Your task to perform on an android device: allow notifications from all sites in the chrome app Image 0: 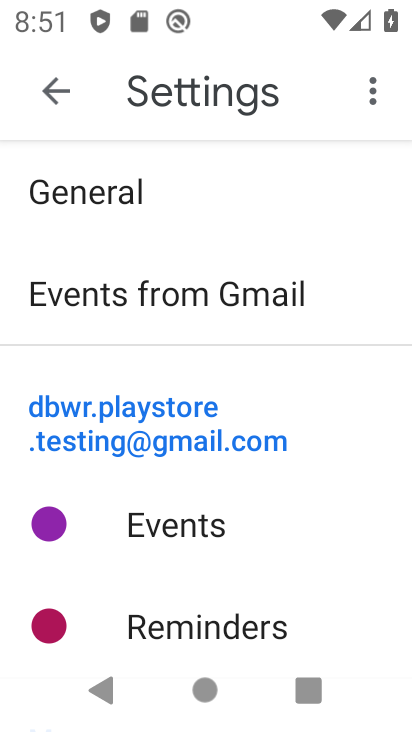
Step 0: press home button
Your task to perform on an android device: allow notifications from all sites in the chrome app Image 1: 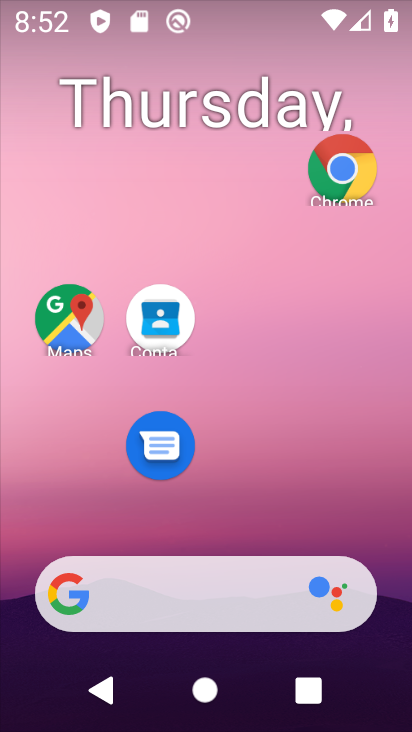
Step 1: drag from (249, 497) to (224, 318)
Your task to perform on an android device: allow notifications from all sites in the chrome app Image 2: 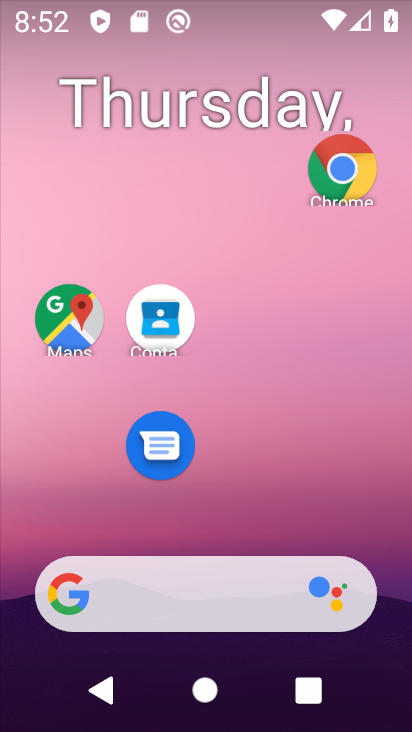
Step 2: drag from (245, 633) to (261, 327)
Your task to perform on an android device: allow notifications from all sites in the chrome app Image 3: 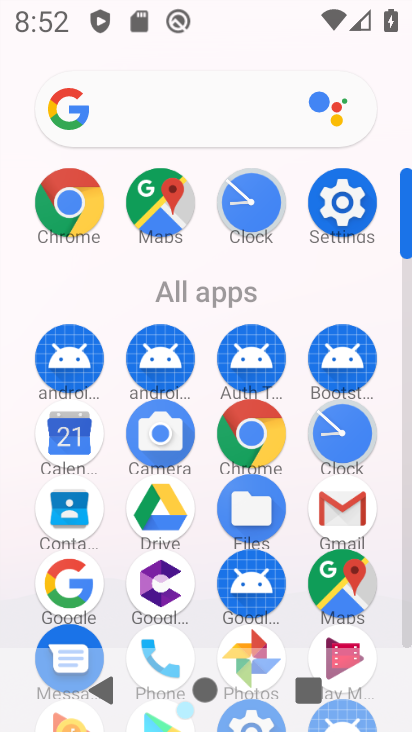
Step 3: click (71, 205)
Your task to perform on an android device: allow notifications from all sites in the chrome app Image 4: 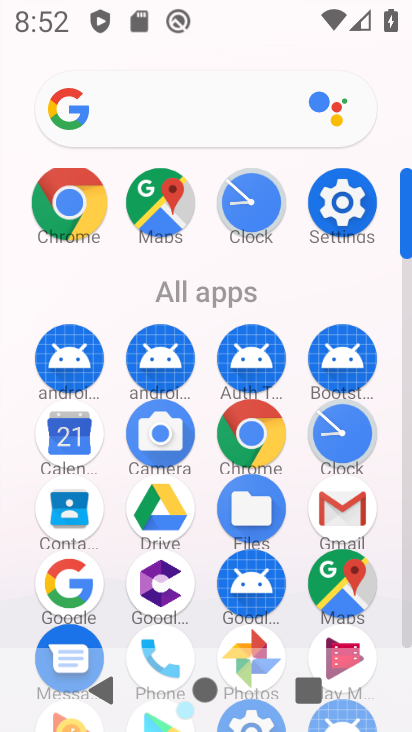
Step 4: click (70, 196)
Your task to perform on an android device: allow notifications from all sites in the chrome app Image 5: 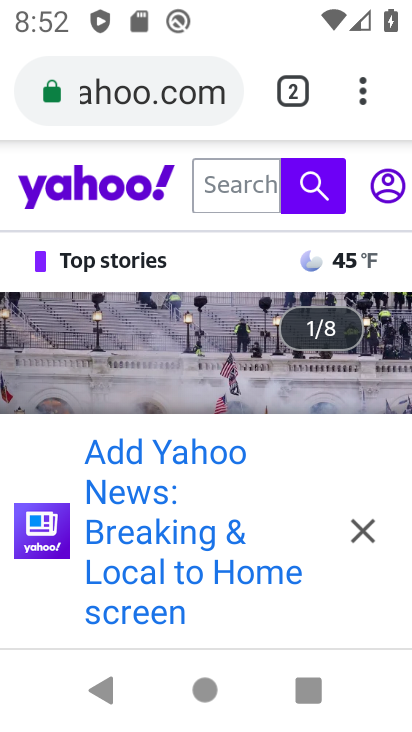
Step 5: click (361, 89)
Your task to perform on an android device: allow notifications from all sites in the chrome app Image 6: 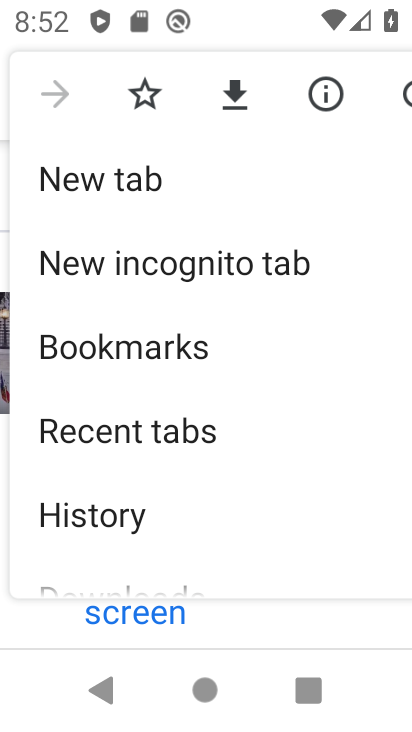
Step 6: drag from (179, 459) to (152, 258)
Your task to perform on an android device: allow notifications from all sites in the chrome app Image 7: 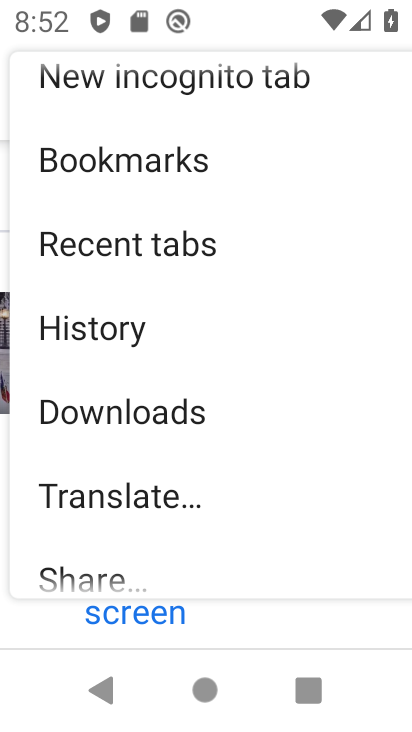
Step 7: drag from (195, 564) to (205, 254)
Your task to perform on an android device: allow notifications from all sites in the chrome app Image 8: 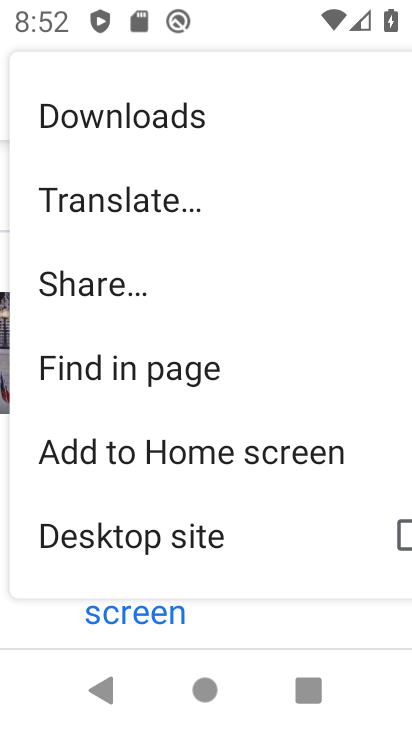
Step 8: drag from (181, 473) to (177, 301)
Your task to perform on an android device: allow notifications from all sites in the chrome app Image 9: 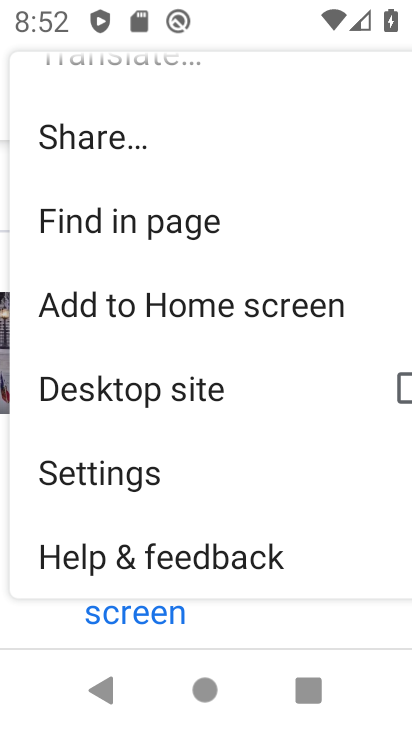
Step 9: click (124, 474)
Your task to perform on an android device: allow notifications from all sites in the chrome app Image 10: 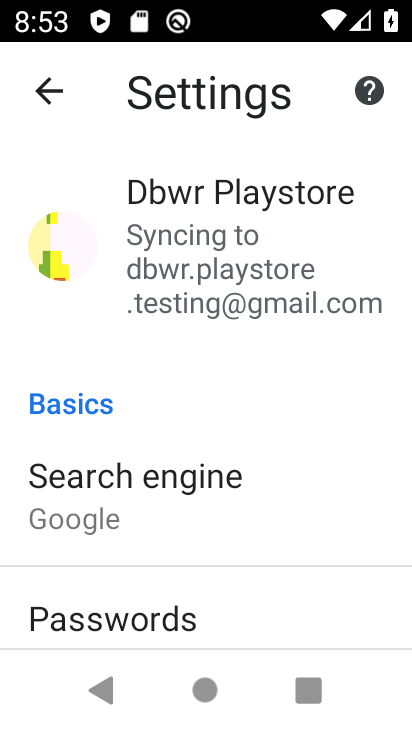
Step 10: drag from (131, 626) to (170, 329)
Your task to perform on an android device: allow notifications from all sites in the chrome app Image 11: 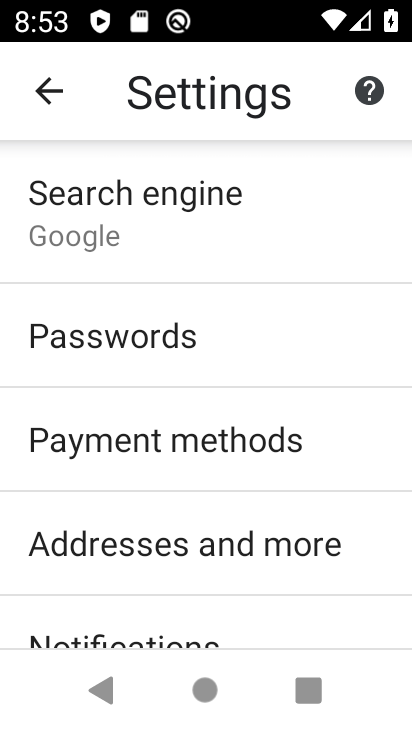
Step 11: drag from (140, 628) to (149, 389)
Your task to perform on an android device: allow notifications from all sites in the chrome app Image 12: 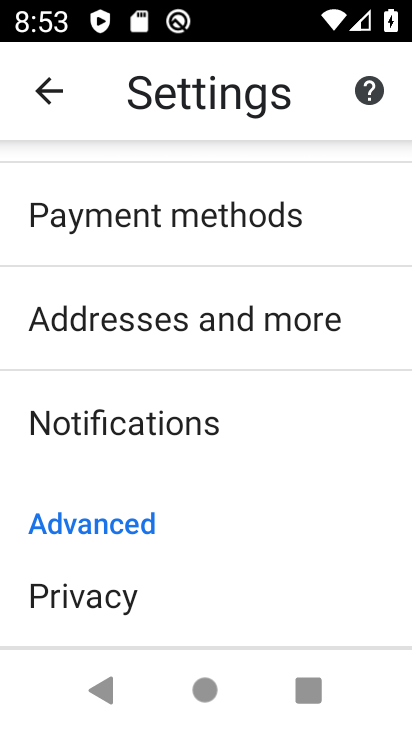
Step 12: drag from (173, 508) to (199, 444)
Your task to perform on an android device: allow notifications from all sites in the chrome app Image 13: 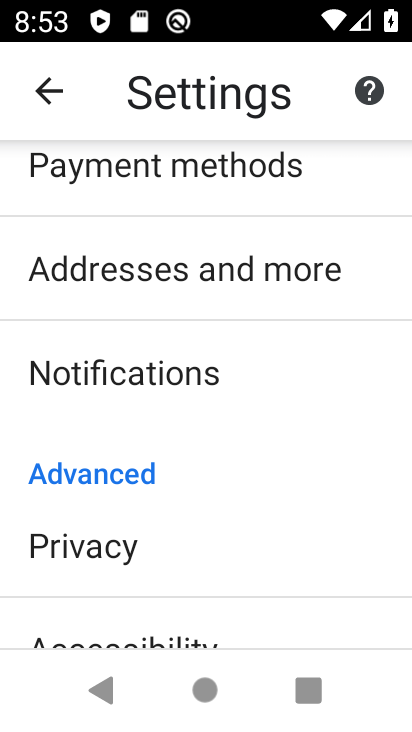
Step 13: drag from (143, 526) to (183, 309)
Your task to perform on an android device: allow notifications from all sites in the chrome app Image 14: 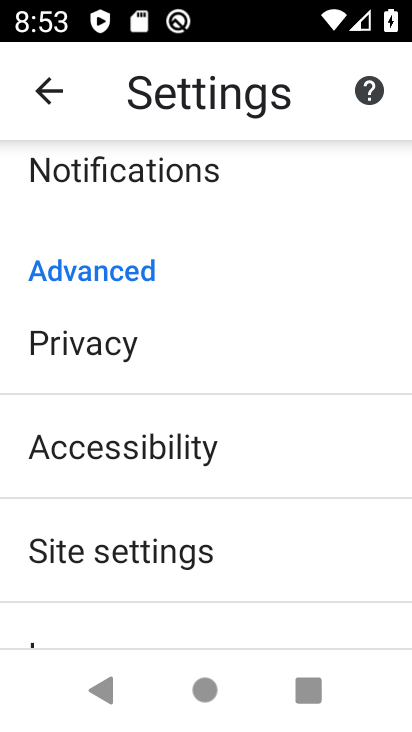
Step 14: click (150, 549)
Your task to perform on an android device: allow notifications from all sites in the chrome app Image 15: 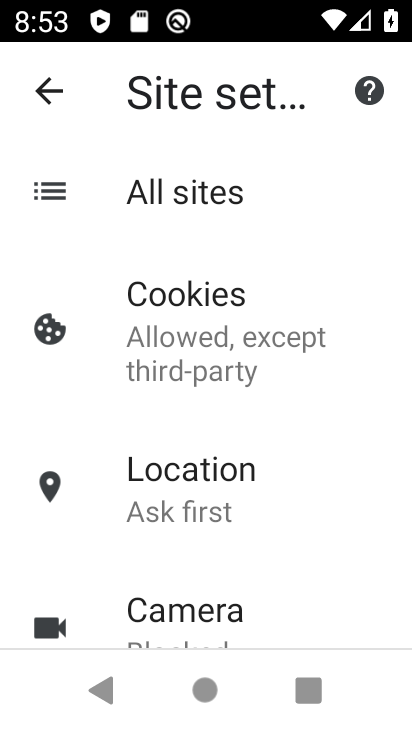
Step 15: drag from (218, 582) to (237, 385)
Your task to perform on an android device: allow notifications from all sites in the chrome app Image 16: 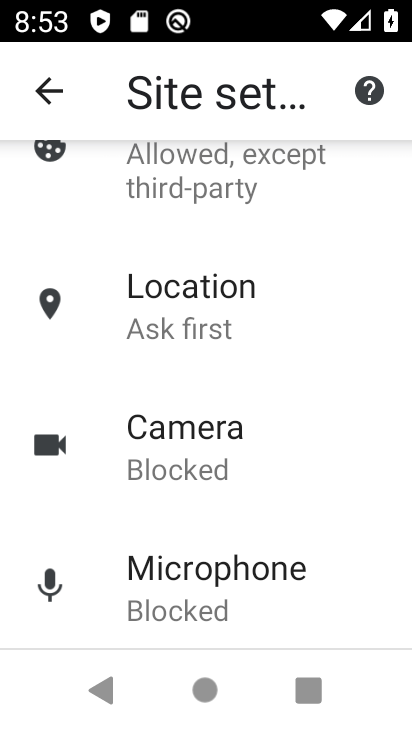
Step 16: drag from (174, 543) to (224, 327)
Your task to perform on an android device: allow notifications from all sites in the chrome app Image 17: 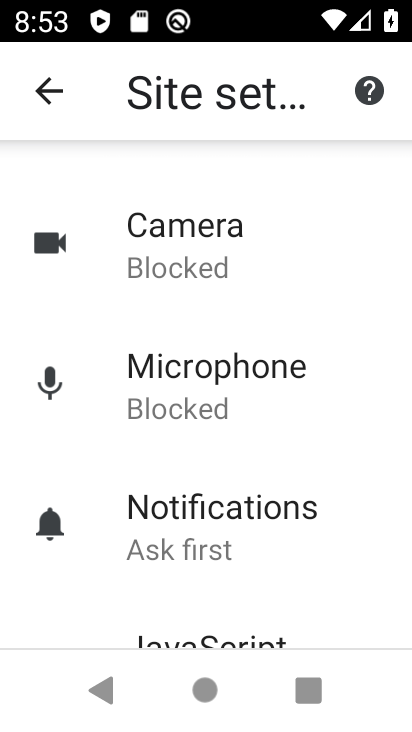
Step 17: click (191, 549)
Your task to perform on an android device: allow notifications from all sites in the chrome app Image 18: 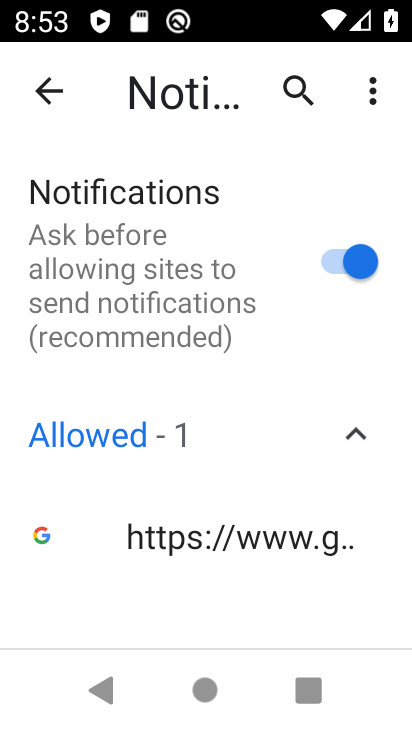
Step 18: click (341, 264)
Your task to perform on an android device: allow notifications from all sites in the chrome app Image 19: 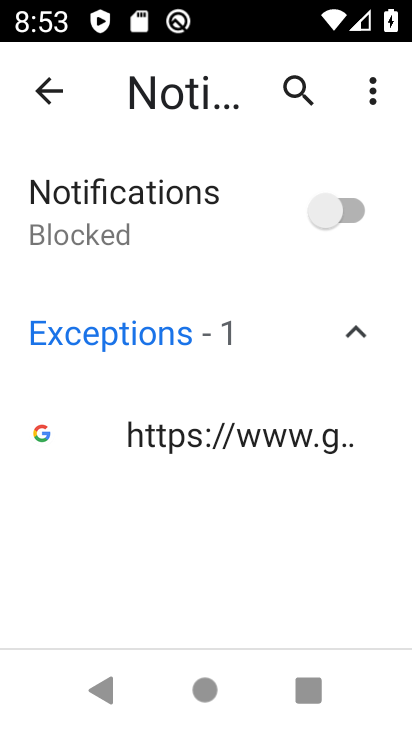
Step 19: click (339, 239)
Your task to perform on an android device: allow notifications from all sites in the chrome app Image 20: 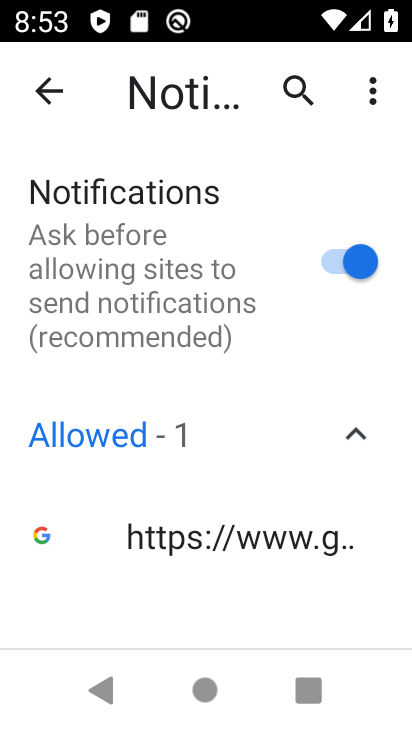
Step 20: task complete